Your task to perform on an android device: Search for hotels in Mexico city Image 0: 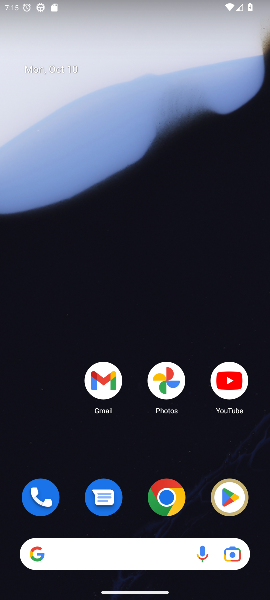
Step 0: drag from (113, 489) to (170, 140)
Your task to perform on an android device: Search for hotels in Mexico city Image 1: 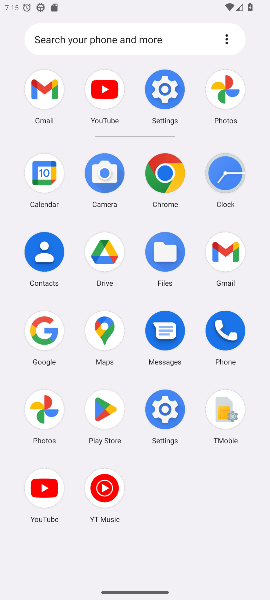
Step 1: click (46, 322)
Your task to perform on an android device: Search for hotels in Mexico city Image 2: 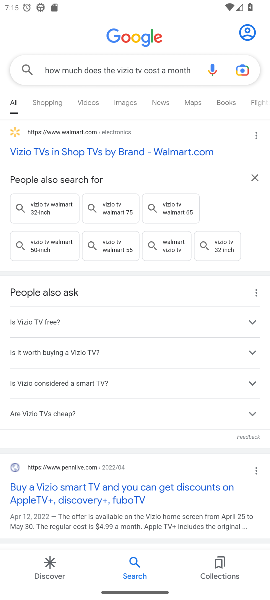
Step 2: click (124, 62)
Your task to perform on an android device: Search for hotels in Mexico city Image 3: 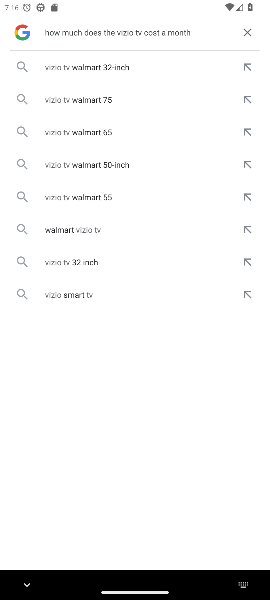
Step 3: click (247, 34)
Your task to perform on an android device: Search for hotels in Mexico city Image 4: 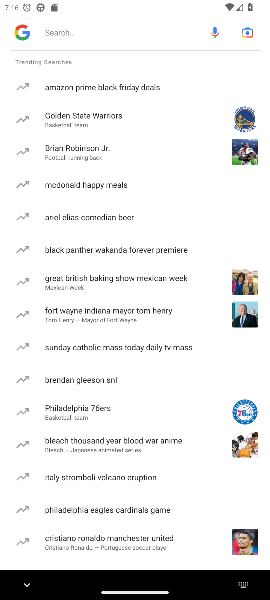
Step 4: click (102, 34)
Your task to perform on an android device: Search for hotels in Mexico city Image 5: 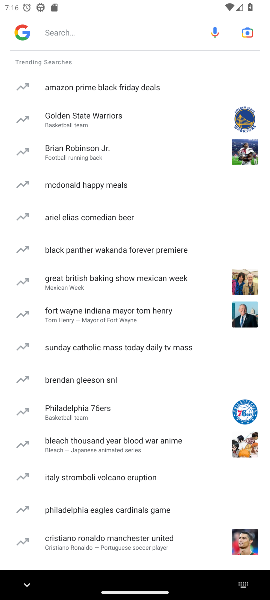
Step 5: type "Search for hotels in Mexico city "
Your task to perform on an android device: Search for hotels in Mexico city Image 6: 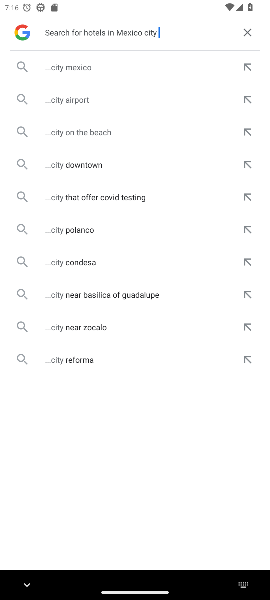
Step 6: click (103, 67)
Your task to perform on an android device: Search for hotels in Mexico city Image 7: 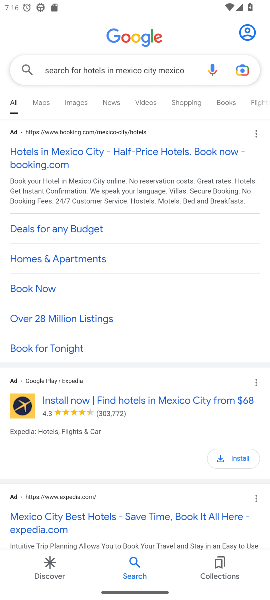
Step 7: click (97, 142)
Your task to perform on an android device: Search for hotels in Mexico city Image 8: 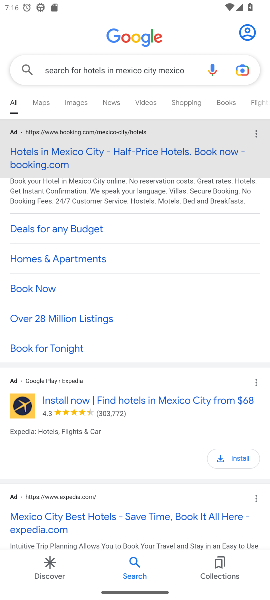
Step 8: click (96, 148)
Your task to perform on an android device: Search for hotels in Mexico city Image 9: 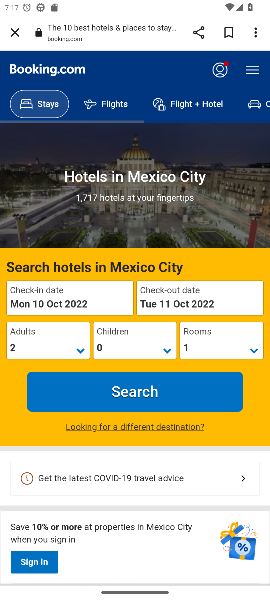
Step 9: click (87, 389)
Your task to perform on an android device: Search for hotels in Mexico city Image 10: 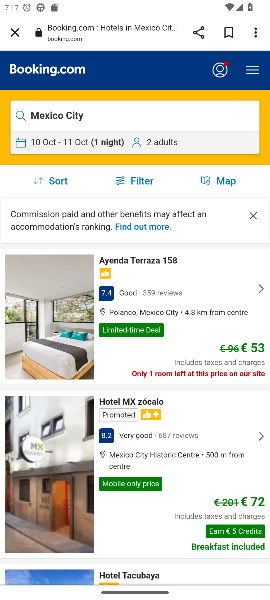
Step 10: task complete